Your task to perform on an android device: What's the latest video from IGN? Image 0: 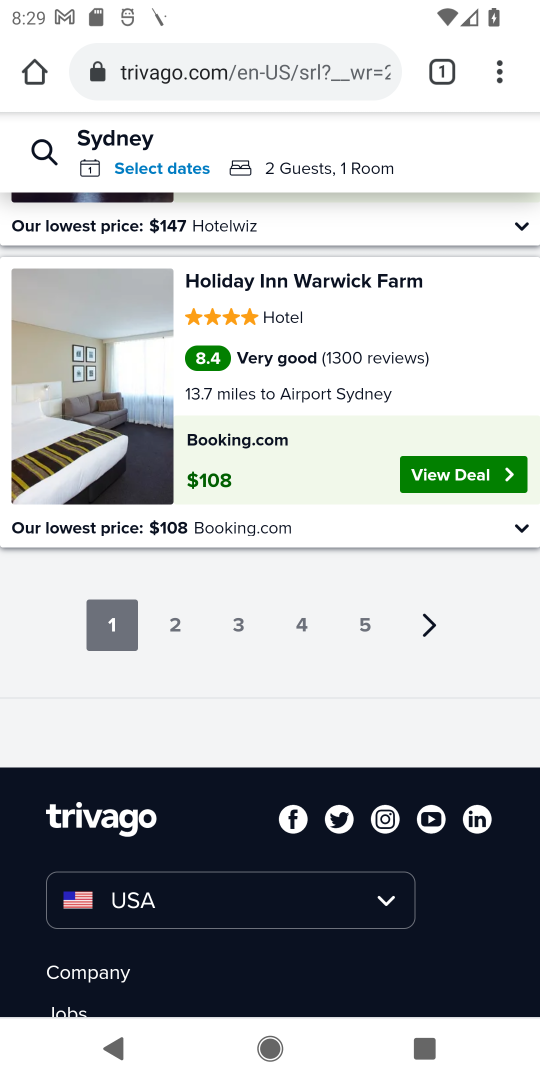
Step 0: click (219, 80)
Your task to perform on an android device: What's the latest video from IGN? Image 1: 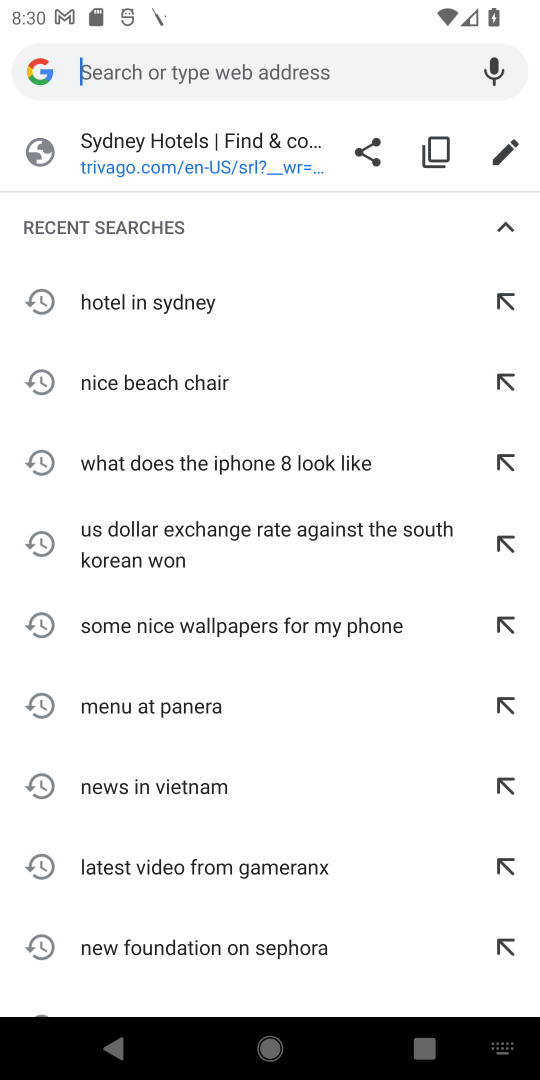
Step 1: type "latest video from IGN"
Your task to perform on an android device: What's the latest video from IGN? Image 2: 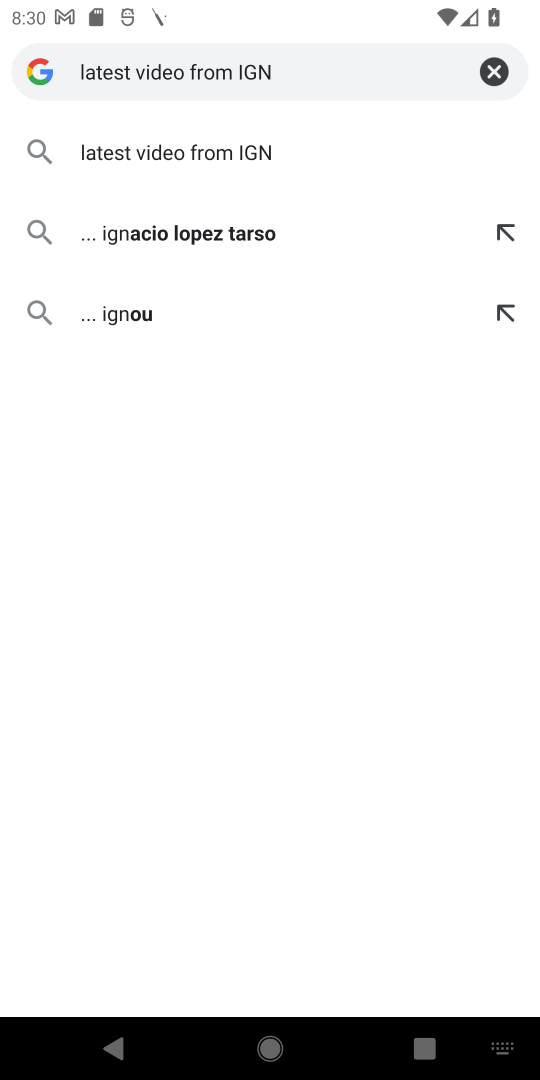
Step 2: click (221, 154)
Your task to perform on an android device: What's the latest video from IGN? Image 3: 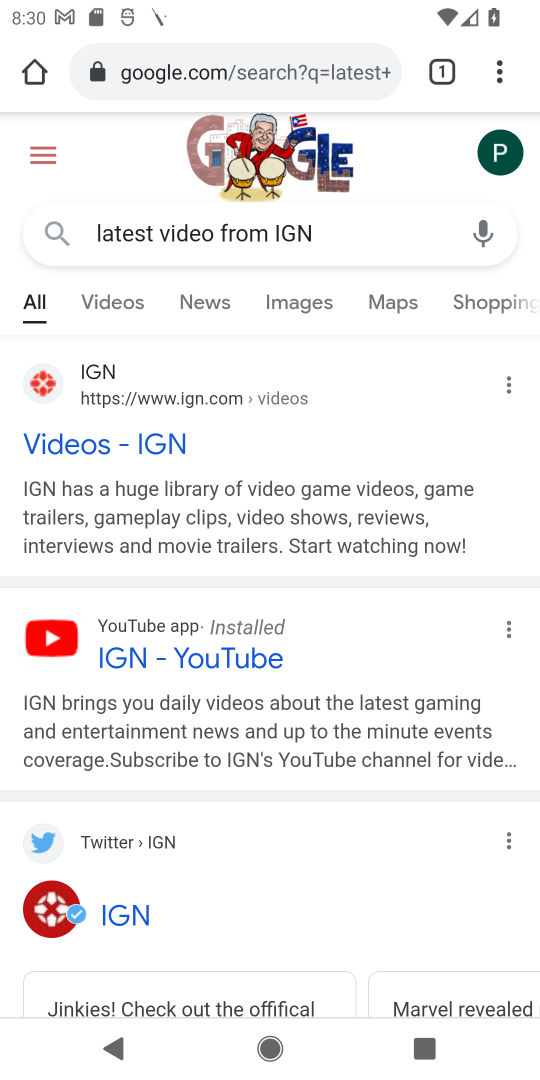
Step 3: click (74, 448)
Your task to perform on an android device: What's the latest video from IGN? Image 4: 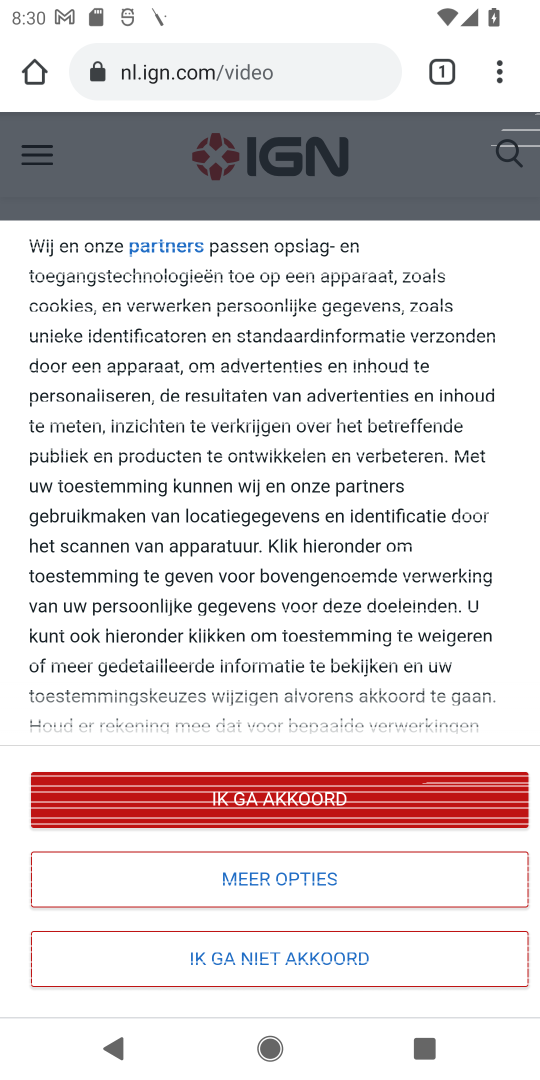
Step 4: click (346, 797)
Your task to perform on an android device: What's the latest video from IGN? Image 5: 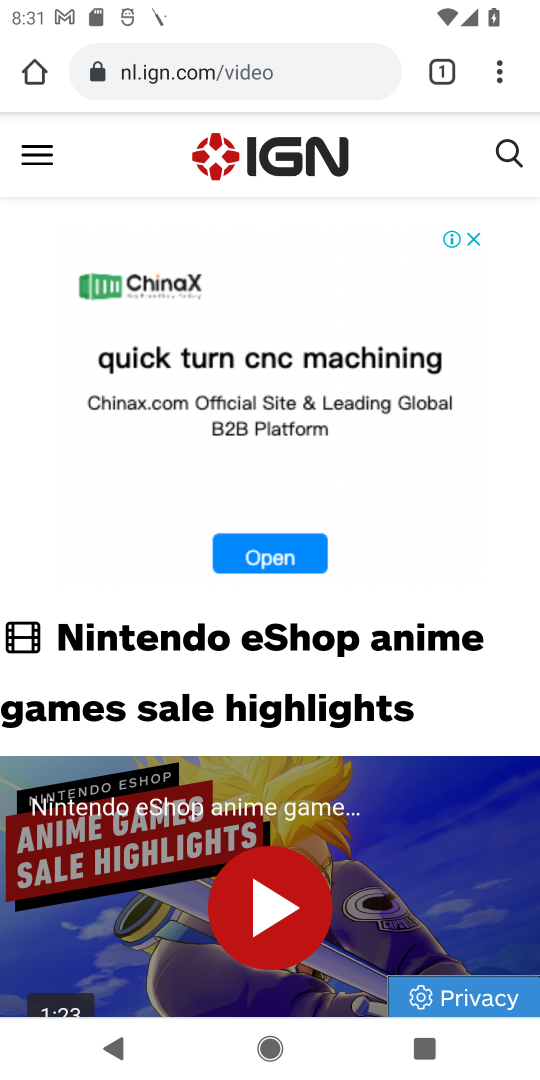
Step 5: task complete